Your task to perform on an android device: open app "Life360: Find Family & Friends" Image 0: 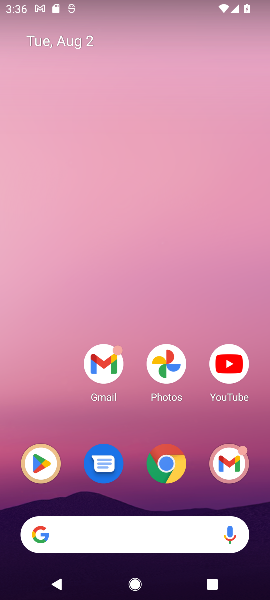
Step 0: click (33, 461)
Your task to perform on an android device: open app "Life360: Find Family & Friends" Image 1: 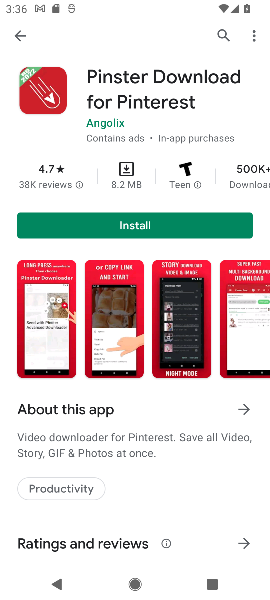
Step 1: click (220, 32)
Your task to perform on an android device: open app "Life360: Find Family & Friends" Image 2: 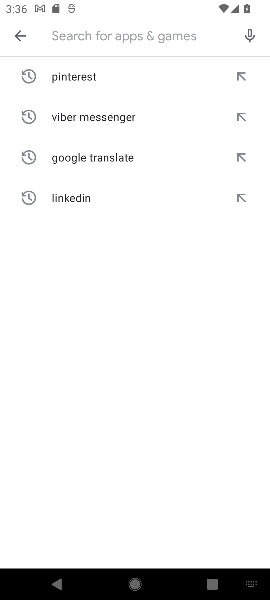
Step 2: type "Life360: Find Family & Friends"
Your task to perform on an android device: open app "Life360: Find Family & Friends" Image 3: 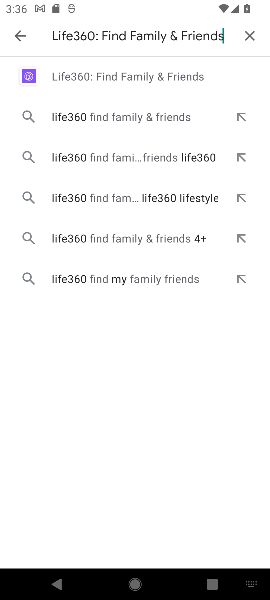
Step 3: click (103, 77)
Your task to perform on an android device: open app "Life360: Find Family & Friends" Image 4: 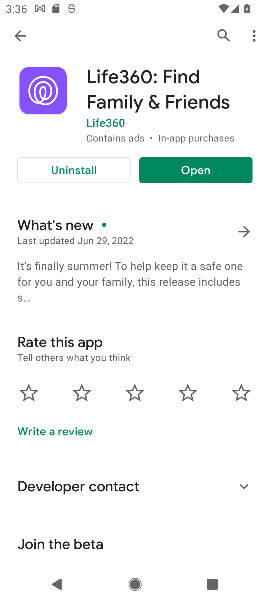
Step 4: click (189, 170)
Your task to perform on an android device: open app "Life360: Find Family & Friends" Image 5: 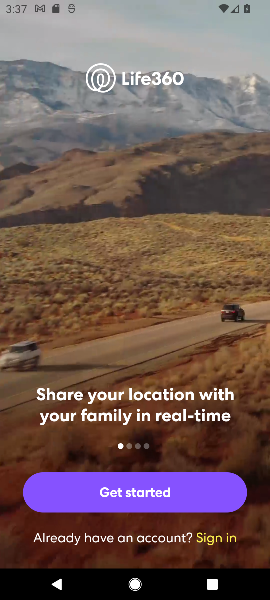
Step 5: task complete